Your task to perform on an android device: Open settings on Google Maps Image 0: 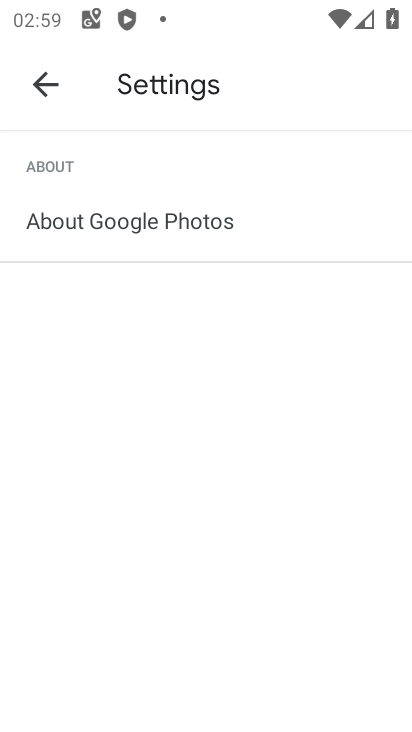
Step 0: press home button
Your task to perform on an android device: Open settings on Google Maps Image 1: 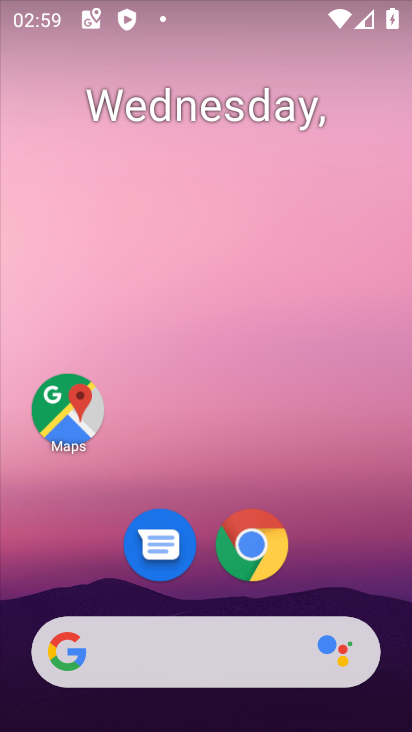
Step 1: click (66, 406)
Your task to perform on an android device: Open settings on Google Maps Image 2: 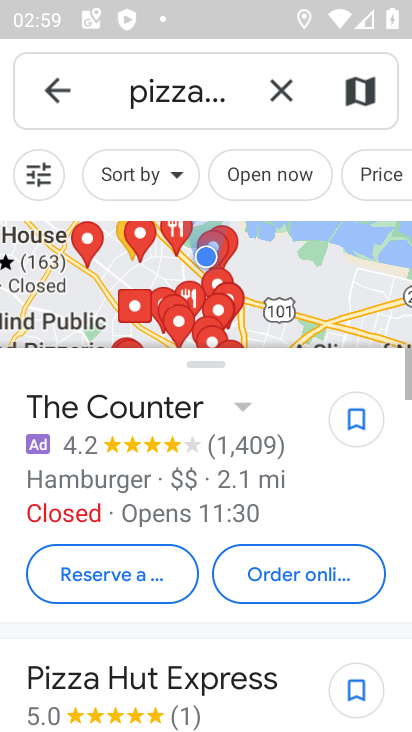
Step 2: click (62, 92)
Your task to perform on an android device: Open settings on Google Maps Image 3: 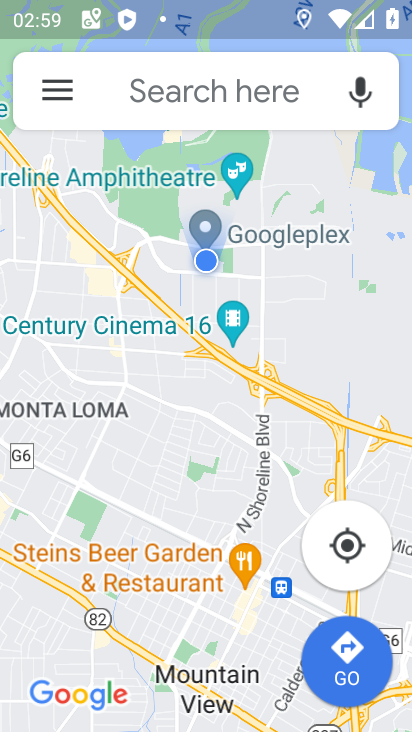
Step 3: click (62, 93)
Your task to perform on an android device: Open settings on Google Maps Image 4: 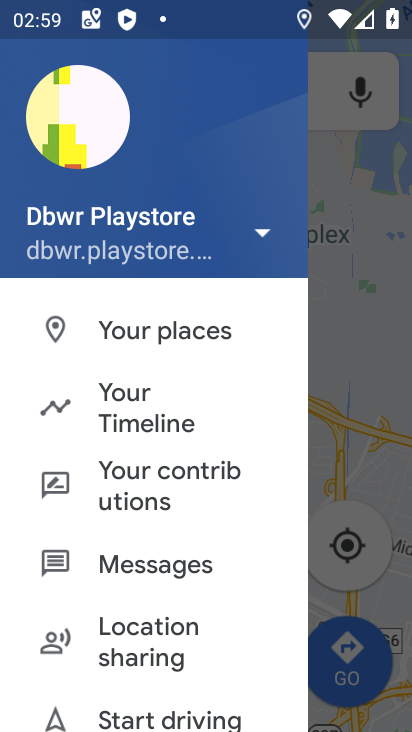
Step 4: drag from (176, 662) to (223, 18)
Your task to perform on an android device: Open settings on Google Maps Image 5: 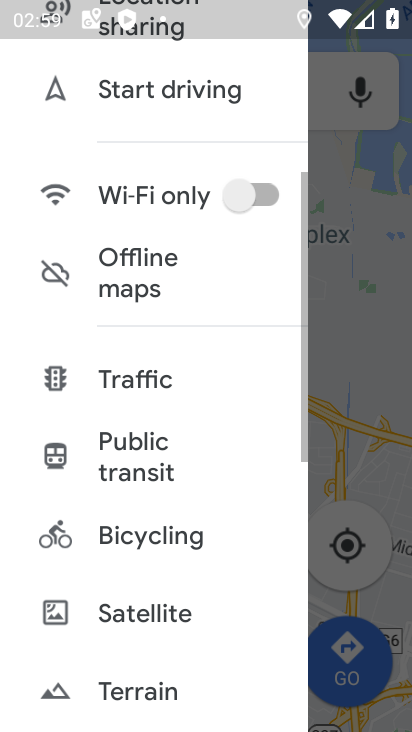
Step 5: drag from (158, 651) to (229, 32)
Your task to perform on an android device: Open settings on Google Maps Image 6: 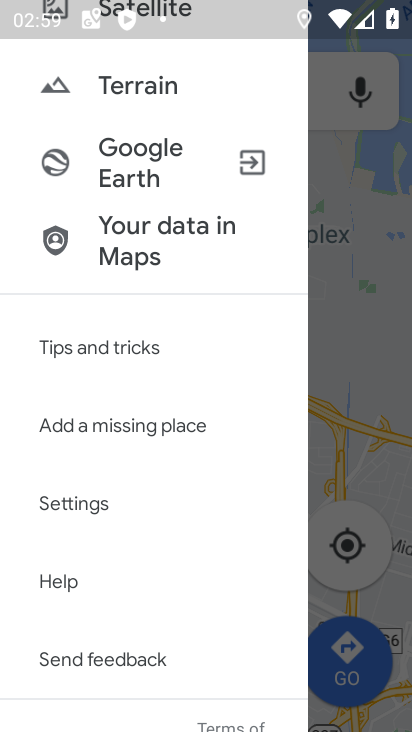
Step 6: click (88, 513)
Your task to perform on an android device: Open settings on Google Maps Image 7: 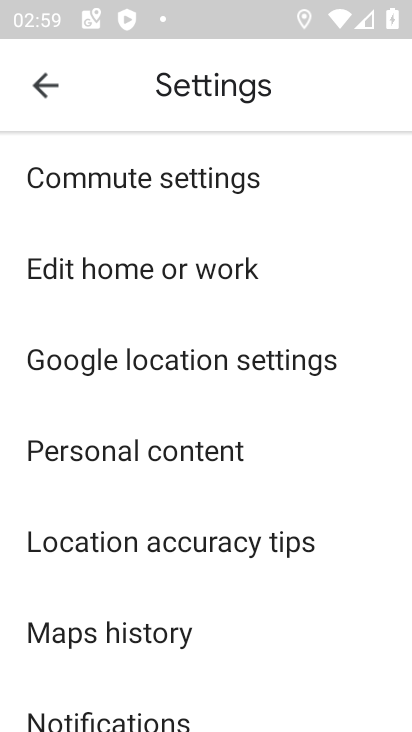
Step 7: task complete